Your task to perform on an android device: visit the assistant section in the google photos Image 0: 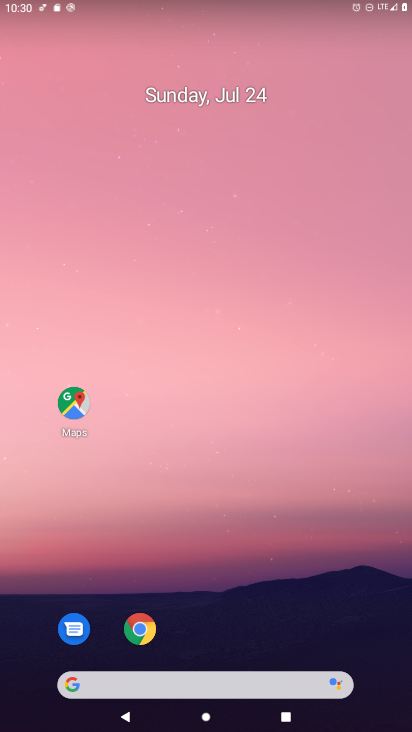
Step 0: drag from (267, 249) to (152, 15)
Your task to perform on an android device: visit the assistant section in the google photos Image 1: 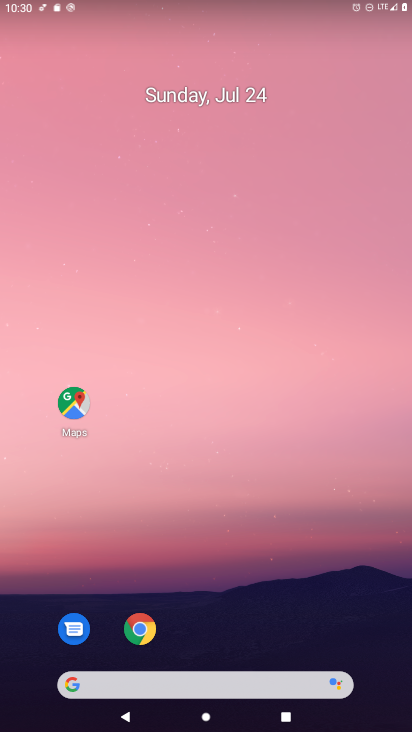
Step 1: drag from (284, 616) to (2, 138)
Your task to perform on an android device: visit the assistant section in the google photos Image 2: 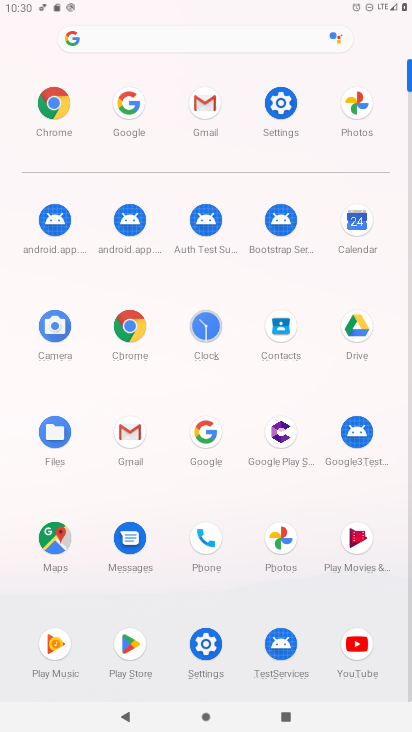
Step 2: click (277, 529)
Your task to perform on an android device: visit the assistant section in the google photos Image 3: 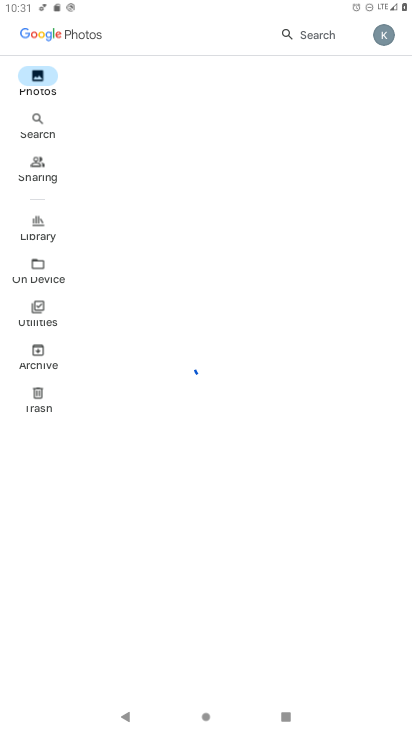
Step 3: task complete